Your task to perform on an android device: Open the map Image 0: 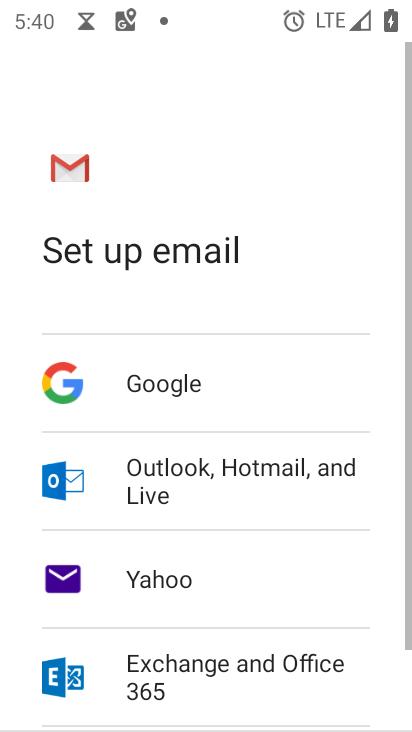
Step 0: press home button
Your task to perform on an android device: Open the map Image 1: 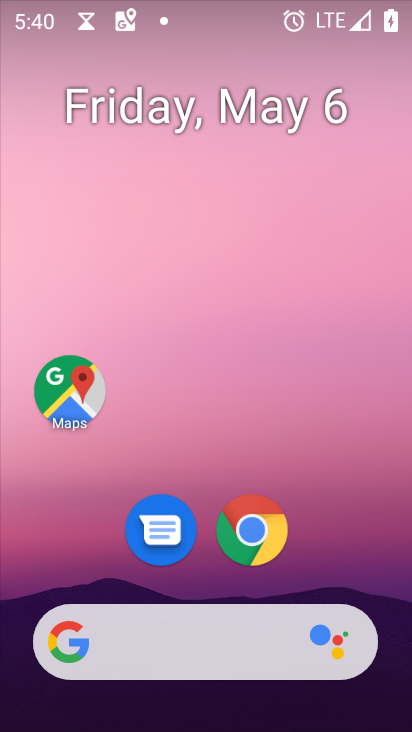
Step 1: click (58, 391)
Your task to perform on an android device: Open the map Image 2: 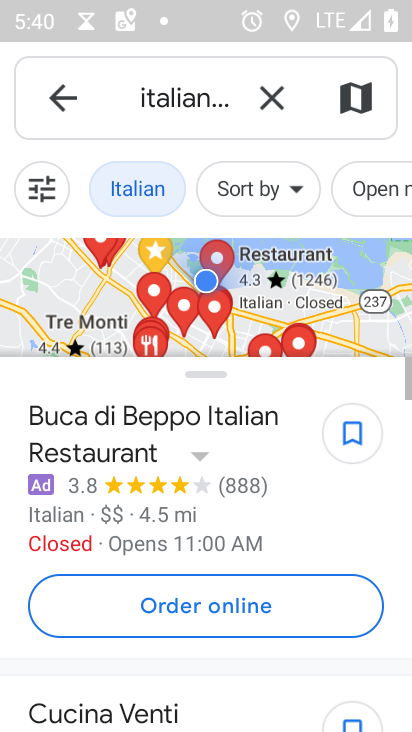
Step 2: task complete